Your task to perform on an android device: toggle improve location accuracy Image 0: 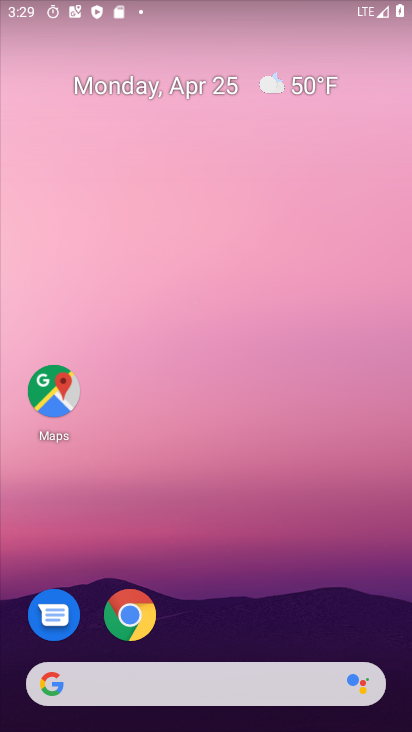
Step 0: drag from (223, 725) to (217, 213)
Your task to perform on an android device: toggle improve location accuracy Image 1: 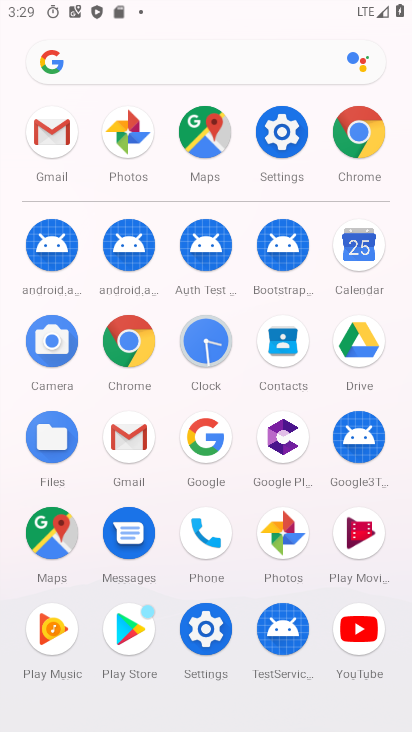
Step 1: click (284, 139)
Your task to perform on an android device: toggle improve location accuracy Image 2: 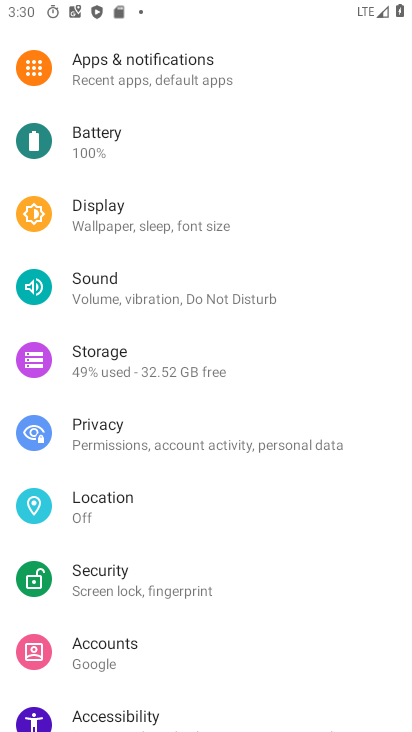
Step 2: click (112, 502)
Your task to perform on an android device: toggle improve location accuracy Image 3: 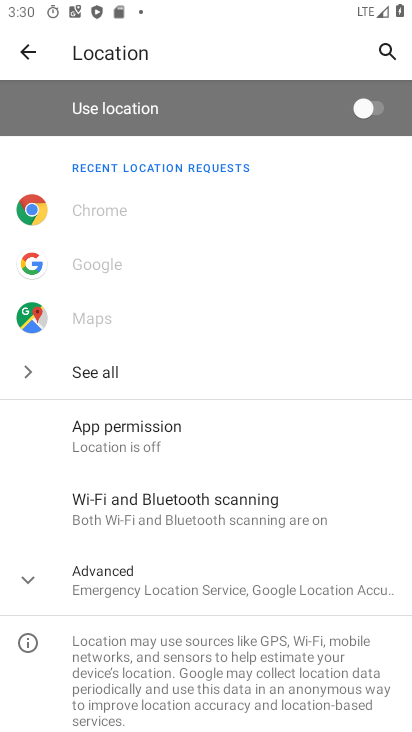
Step 3: click (107, 581)
Your task to perform on an android device: toggle improve location accuracy Image 4: 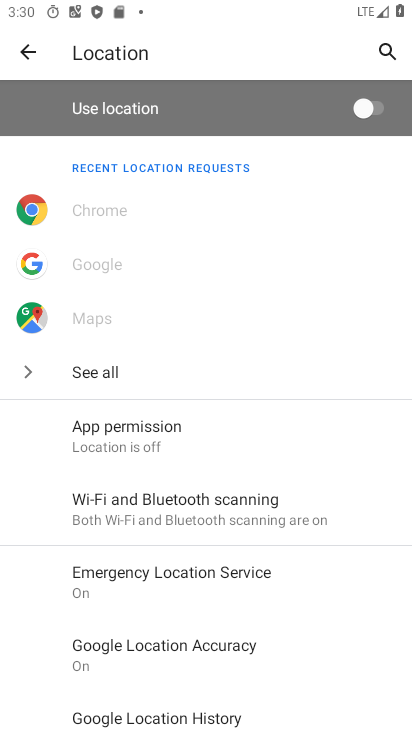
Step 4: click (161, 641)
Your task to perform on an android device: toggle improve location accuracy Image 5: 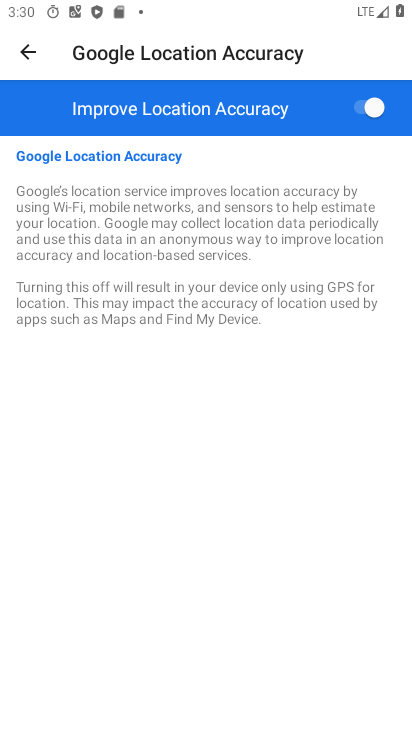
Step 5: click (359, 108)
Your task to perform on an android device: toggle improve location accuracy Image 6: 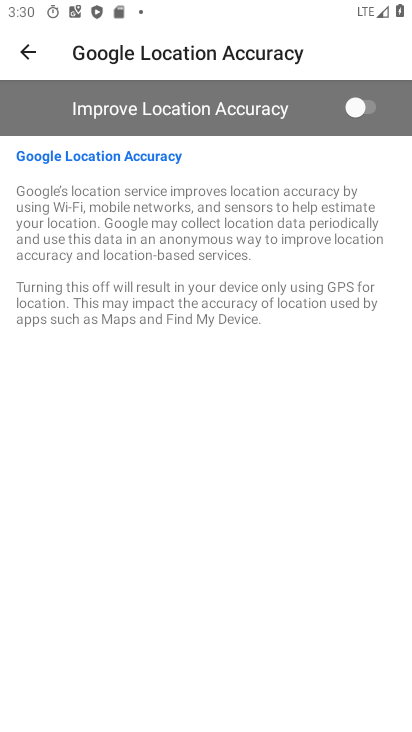
Step 6: task complete